Your task to perform on an android device: Open Chrome and go to settings Image 0: 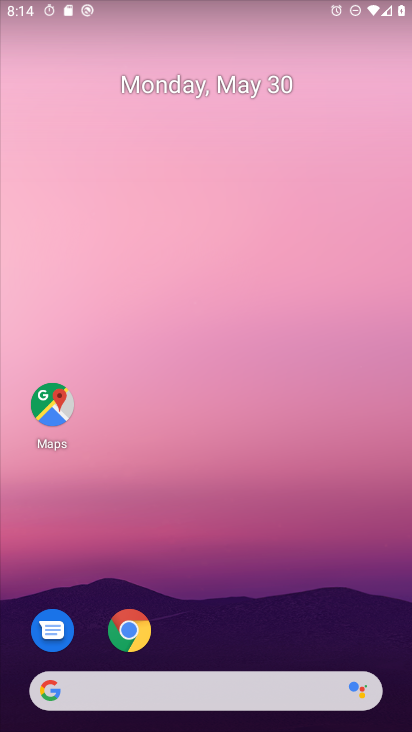
Step 0: drag from (342, 650) to (321, 13)
Your task to perform on an android device: Open Chrome and go to settings Image 1: 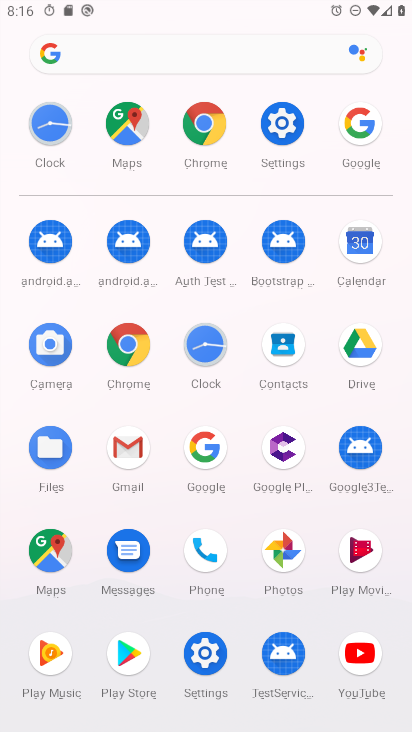
Step 1: click (136, 348)
Your task to perform on an android device: Open Chrome and go to settings Image 2: 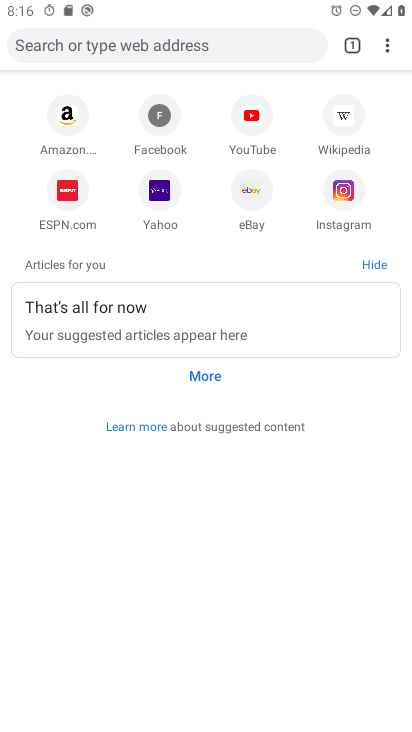
Step 2: click (386, 40)
Your task to perform on an android device: Open Chrome and go to settings Image 3: 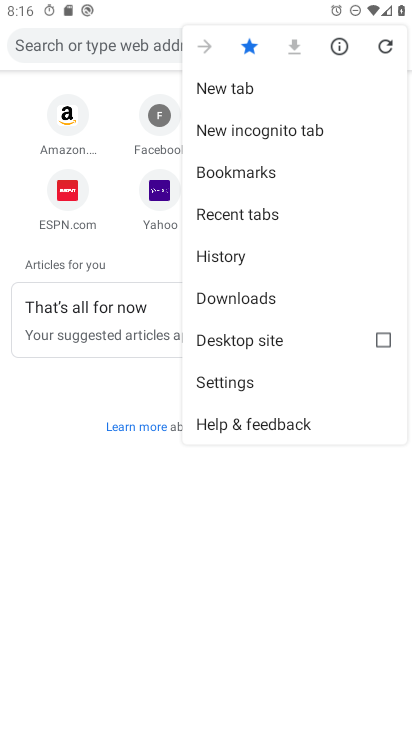
Step 3: click (243, 382)
Your task to perform on an android device: Open Chrome and go to settings Image 4: 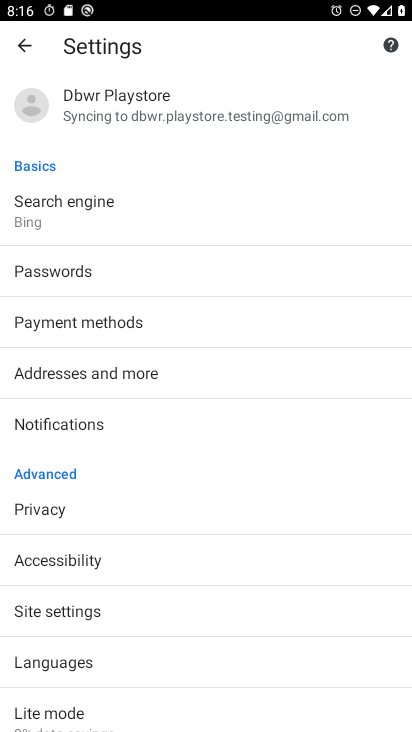
Step 4: task complete